Your task to perform on an android device: What's on my calendar tomorrow? Image 0: 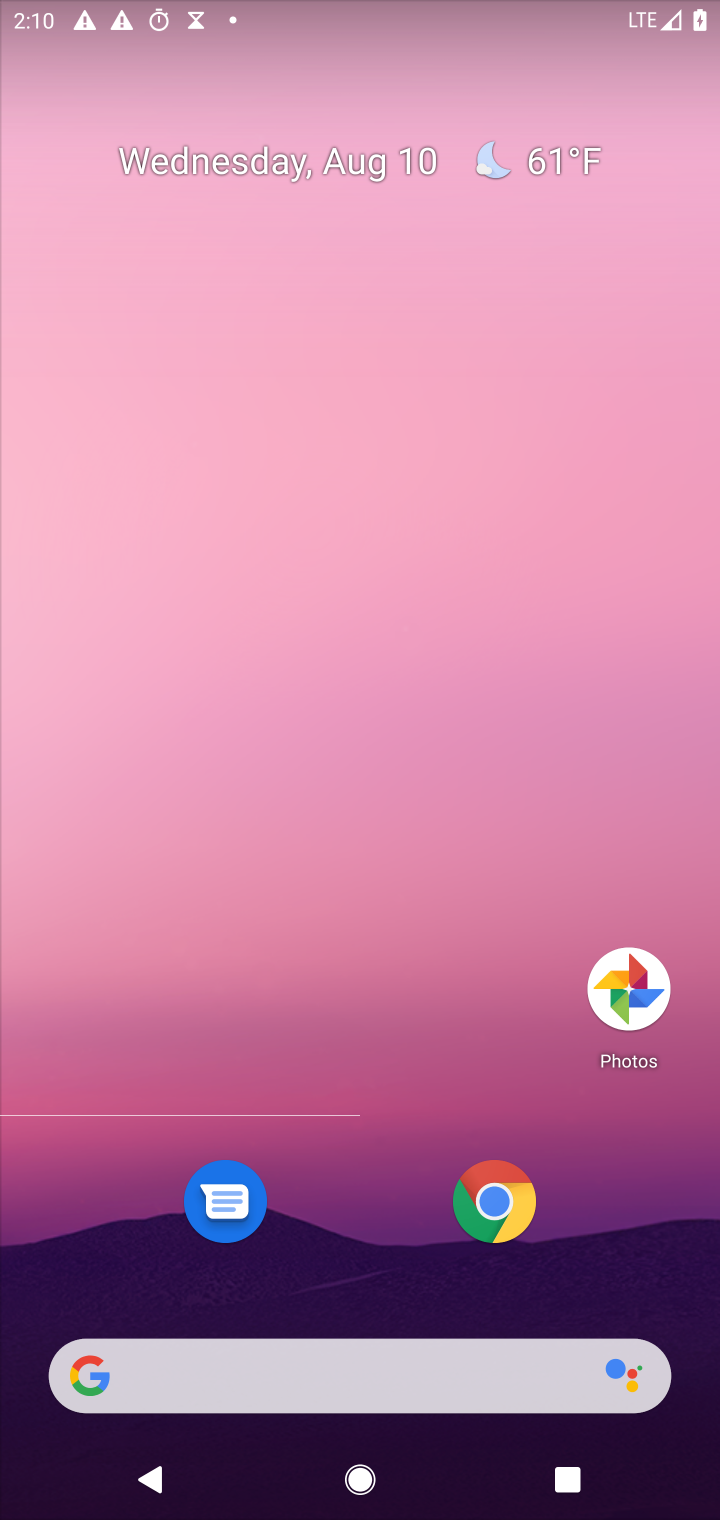
Step 0: press home button
Your task to perform on an android device: What's on my calendar tomorrow? Image 1: 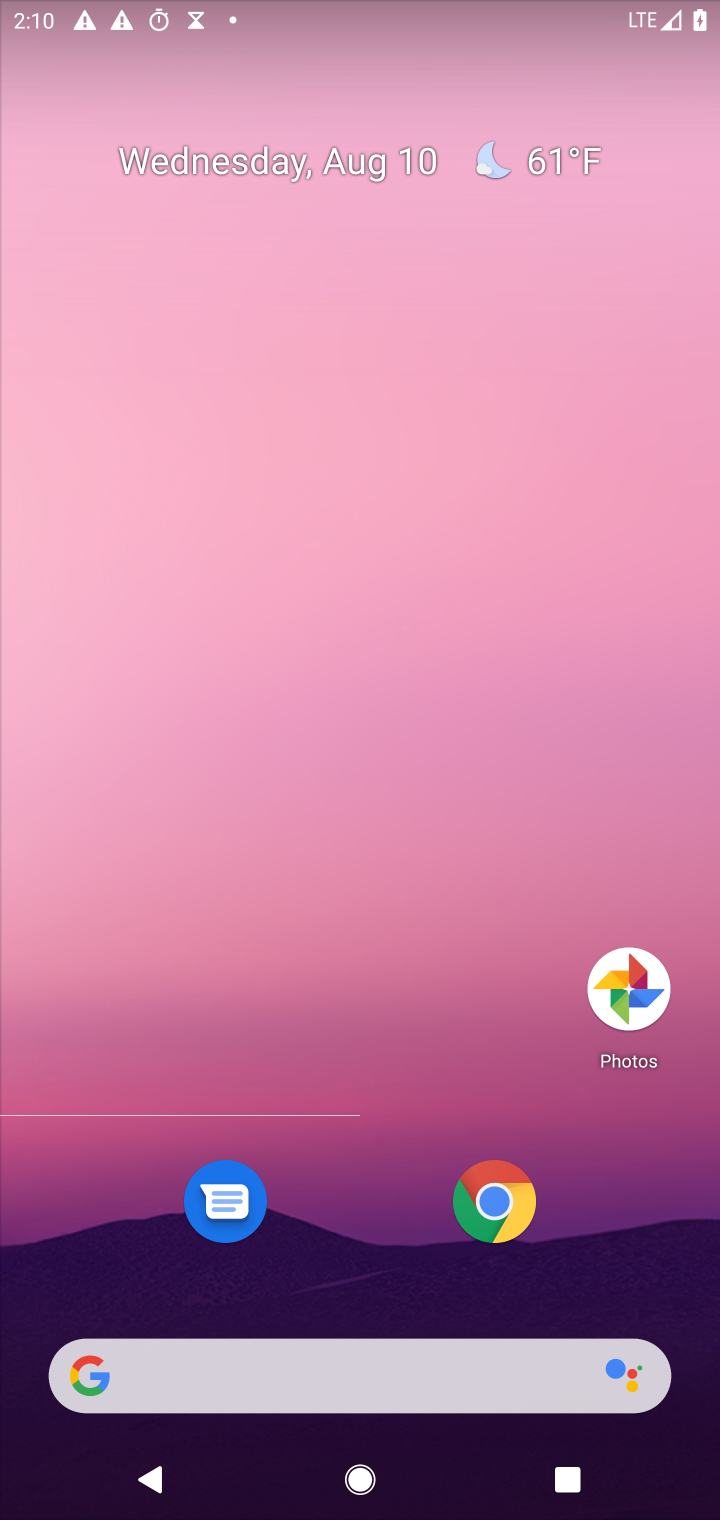
Step 1: drag from (481, 1181) to (610, 321)
Your task to perform on an android device: What's on my calendar tomorrow? Image 2: 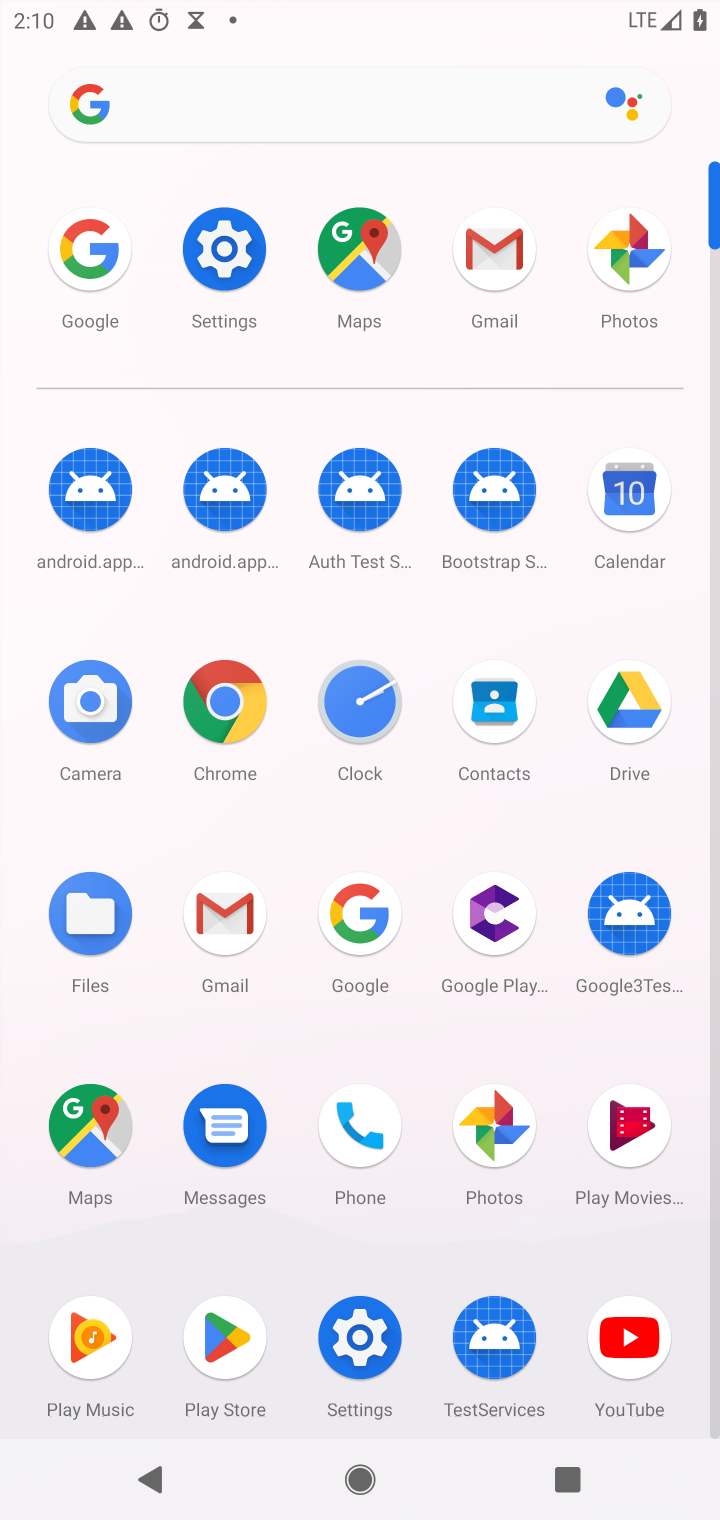
Step 2: click (639, 496)
Your task to perform on an android device: What's on my calendar tomorrow? Image 3: 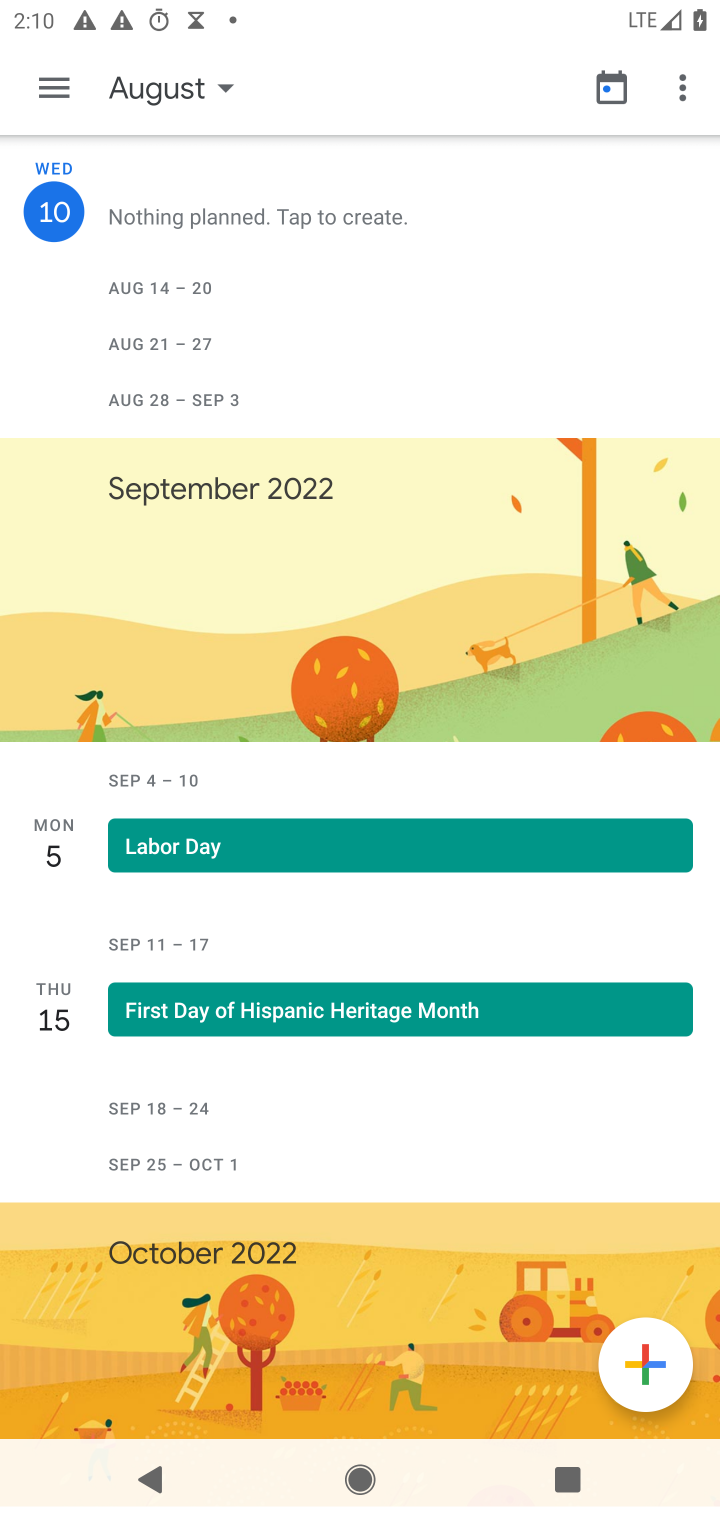
Step 3: click (214, 88)
Your task to perform on an android device: What's on my calendar tomorrow? Image 4: 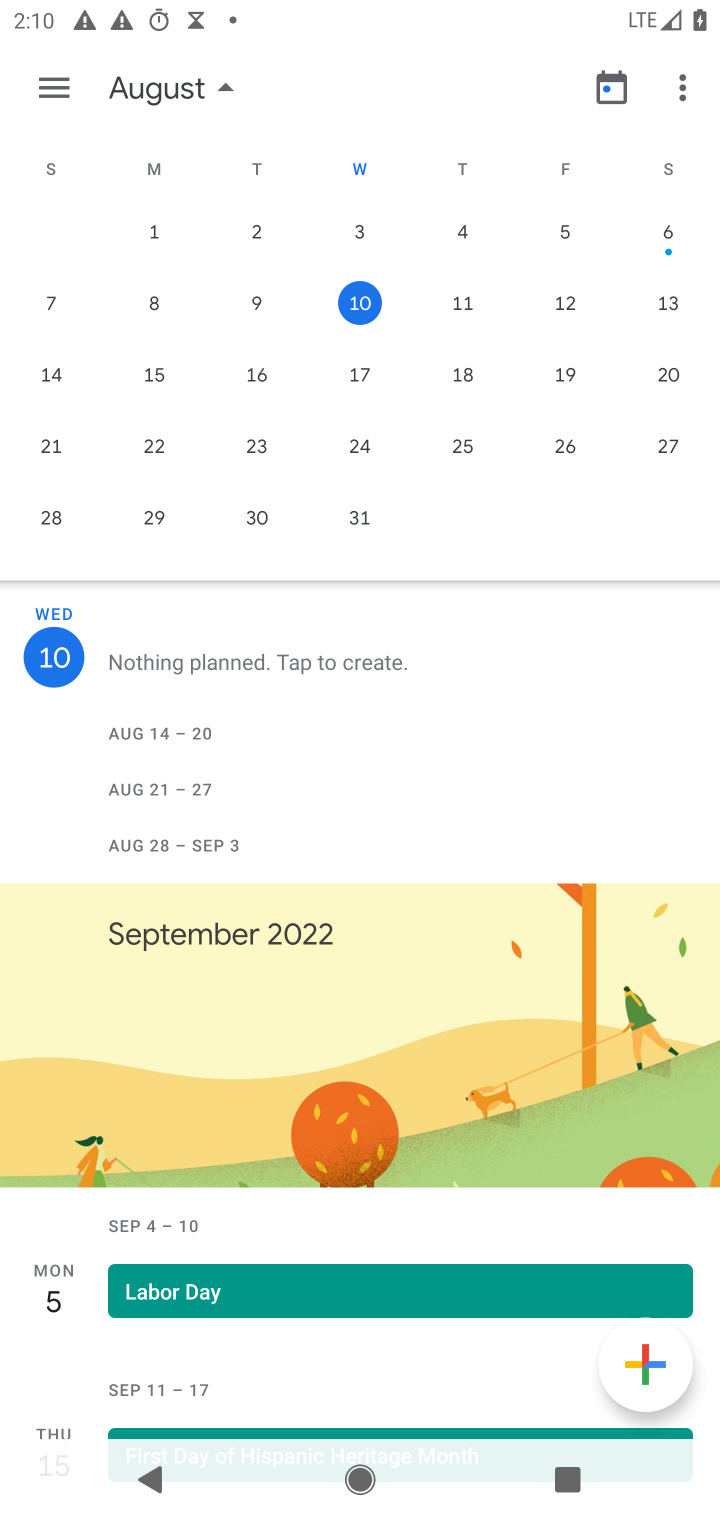
Step 4: click (460, 317)
Your task to perform on an android device: What's on my calendar tomorrow? Image 5: 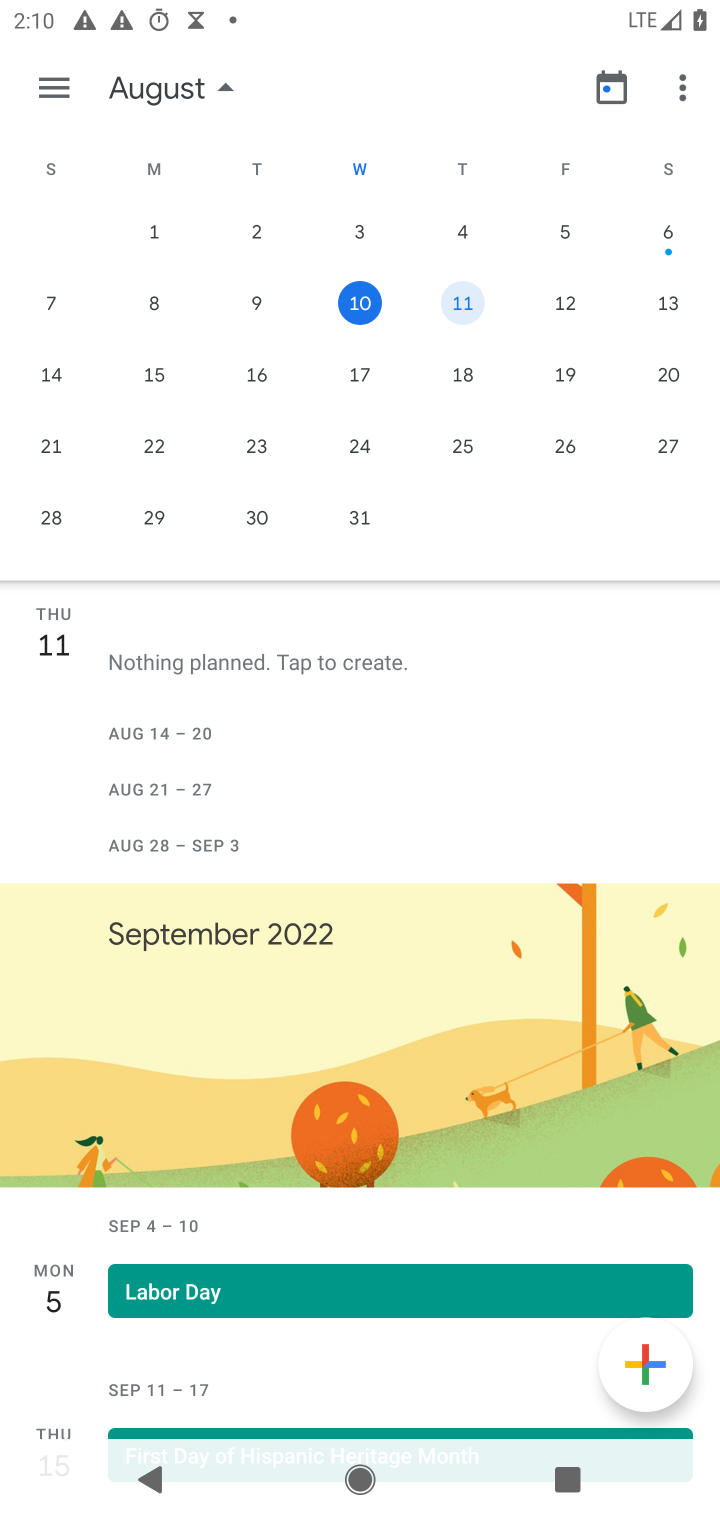
Step 5: task complete